Your task to perform on an android device: remove spam from my inbox in the gmail app Image 0: 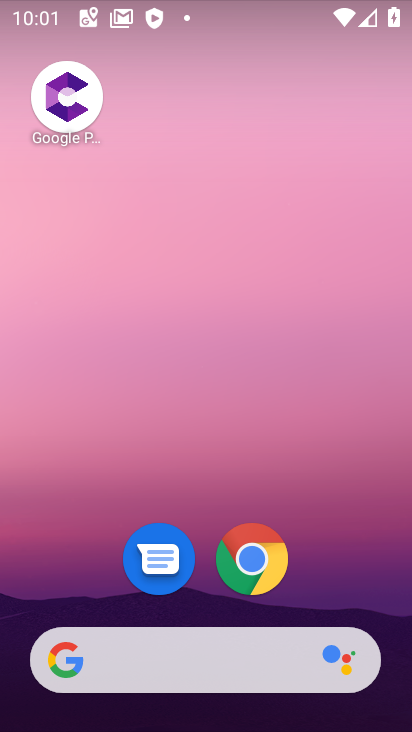
Step 0: drag from (355, 561) to (294, 129)
Your task to perform on an android device: remove spam from my inbox in the gmail app Image 1: 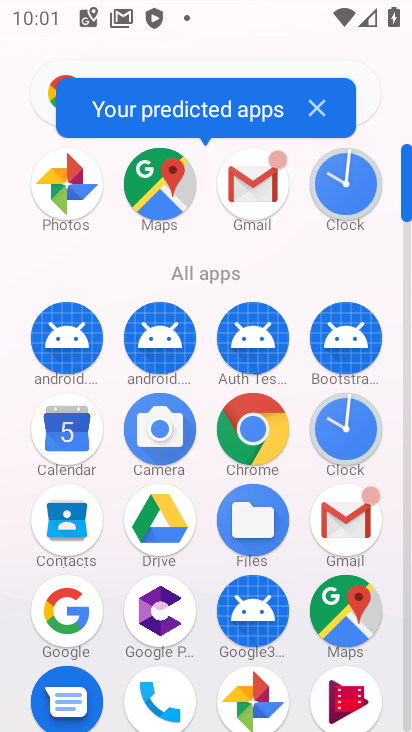
Step 1: click (339, 520)
Your task to perform on an android device: remove spam from my inbox in the gmail app Image 2: 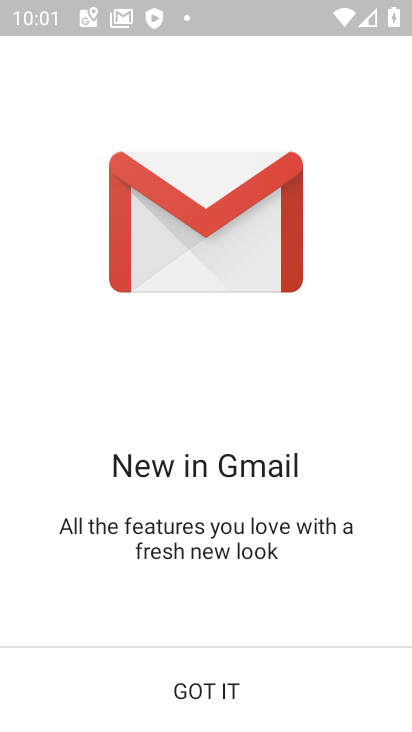
Step 2: click (237, 683)
Your task to perform on an android device: remove spam from my inbox in the gmail app Image 3: 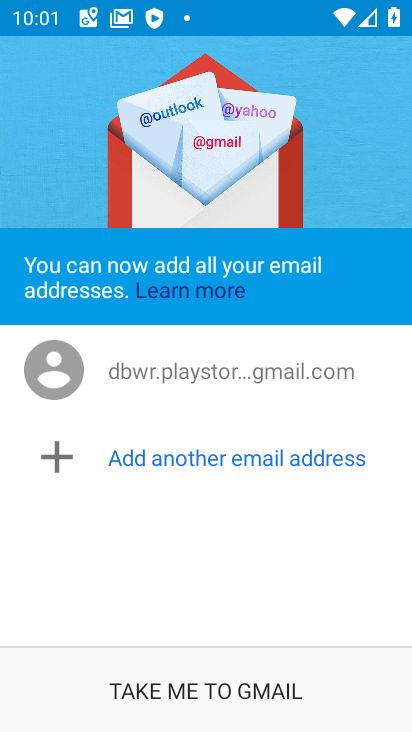
Step 3: click (177, 701)
Your task to perform on an android device: remove spam from my inbox in the gmail app Image 4: 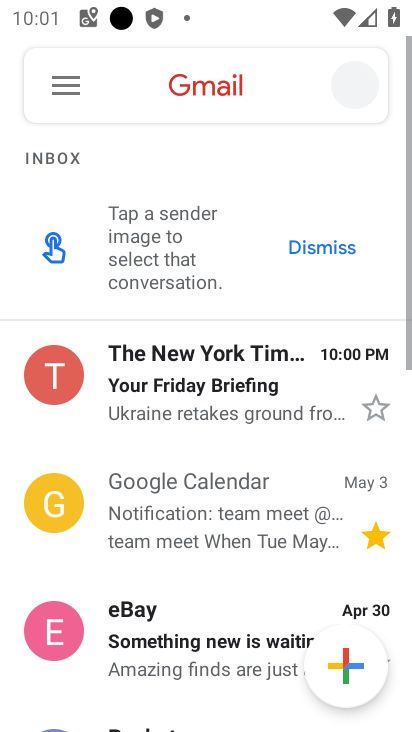
Step 4: click (69, 101)
Your task to perform on an android device: remove spam from my inbox in the gmail app Image 5: 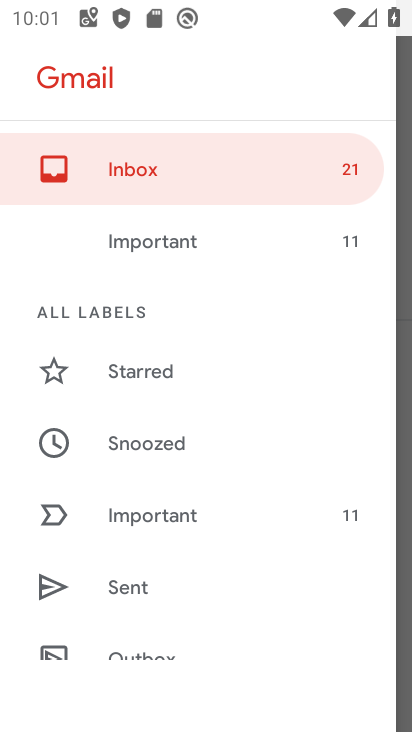
Step 5: drag from (178, 650) to (150, 412)
Your task to perform on an android device: remove spam from my inbox in the gmail app Image 6: 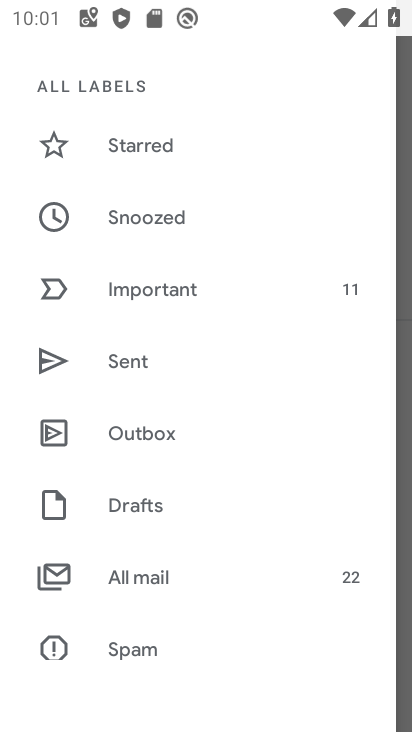
Step 6: click (132, 653)
Your task to perform on an android device: remove spam from my inbox in the gmail app Image 7: 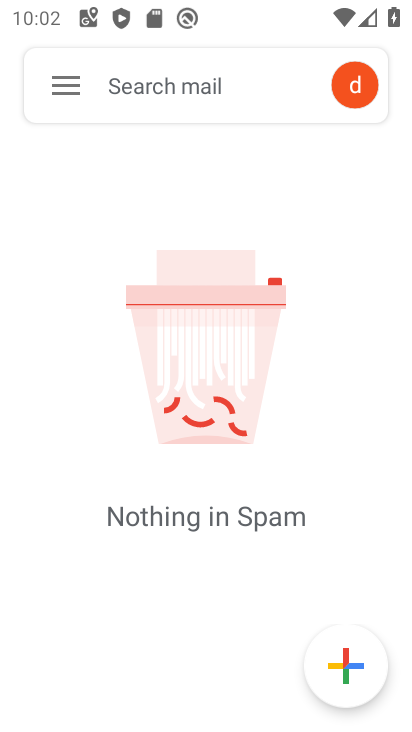
Step 7: click (71, 93)
Your task to perform on an android device: remove spam from my inbox in the gmail app Image 8: 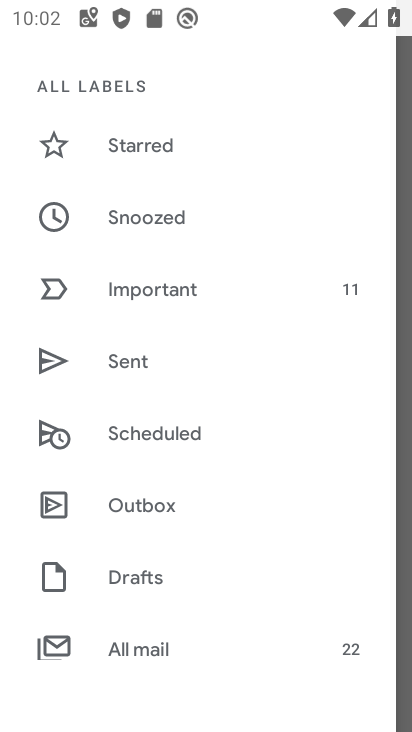
Step 8: drag from (162, 635) to (157, 410)
Your task to perform on an android device: remove spam from my inbox in the gmail app Image 9: 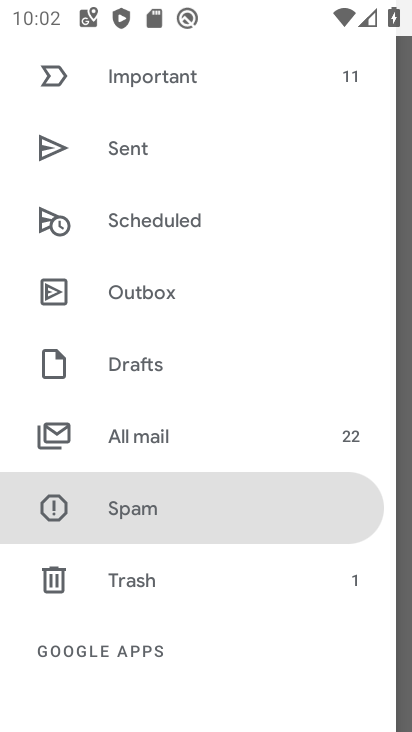
Step 9: click (162, 528)
Your task to perform on an android device: remove spam from my inbox in the gmail app Image 10: 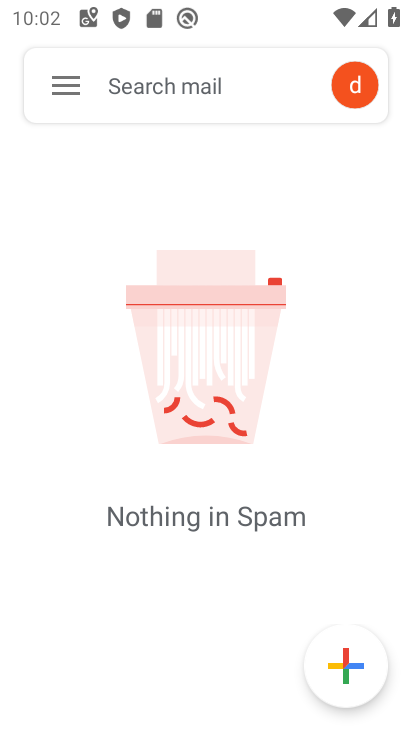
Step 10: task complete